Your task to perform on an android device: turn off picture-in-picture Image 0: 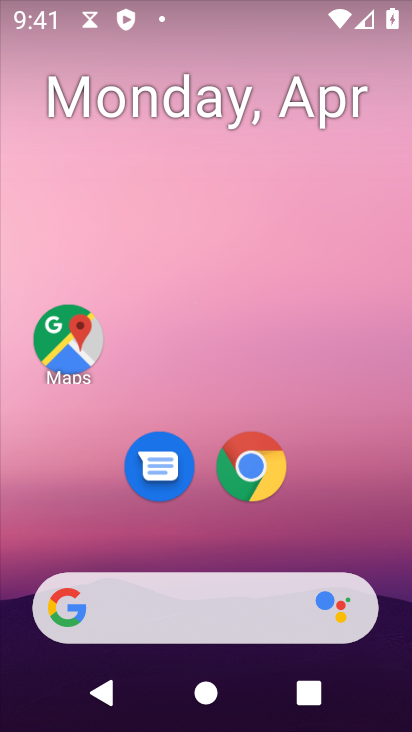
Step 0: click (253, 471)
Your task to perform on an android device: turn off picture-in-picture Image 1: 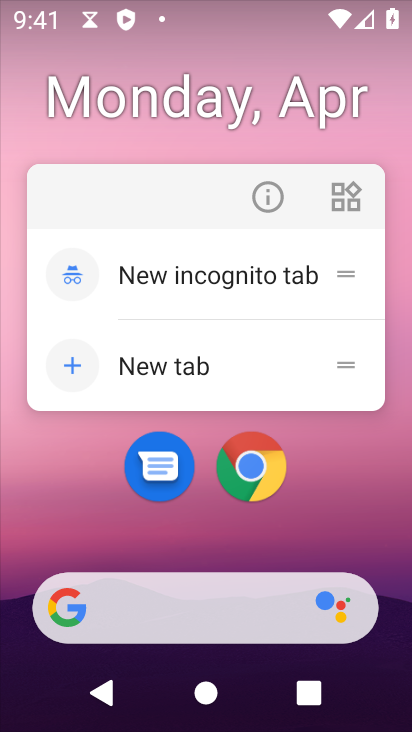
Step 1: click (276, 207)
Your task to perform on an android device: turn off picture-in-picture Image 2: 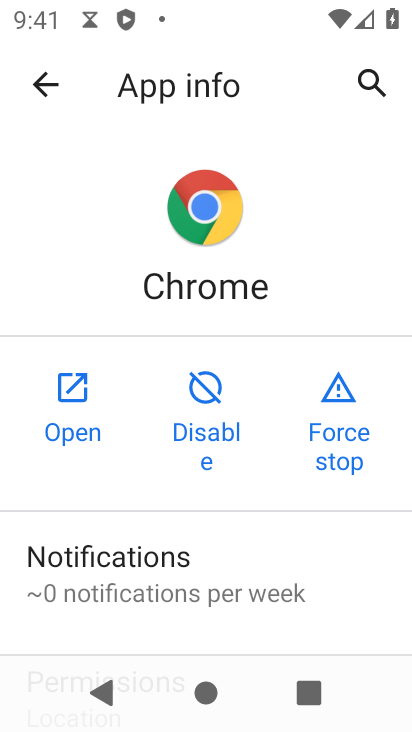
Step 2: drag from (211, 564) to (262, 378)
Your task to perform on an android device: turn off picture-in-picture Image 3: 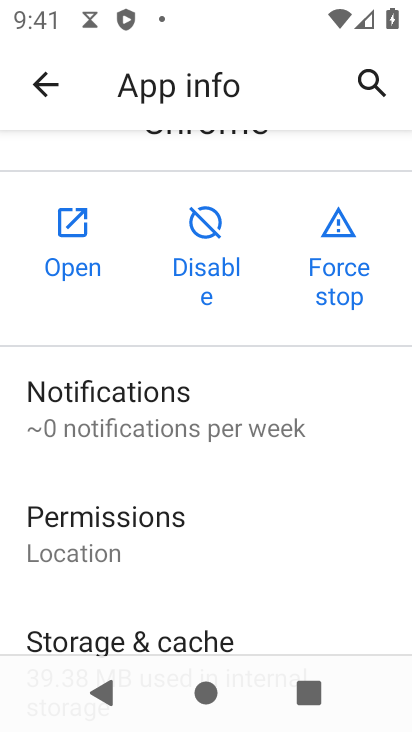
Step 3: drag from (258, 519) to (269, 365)
Your task to perform on an android device: turn off picture-in-picture Image 4: 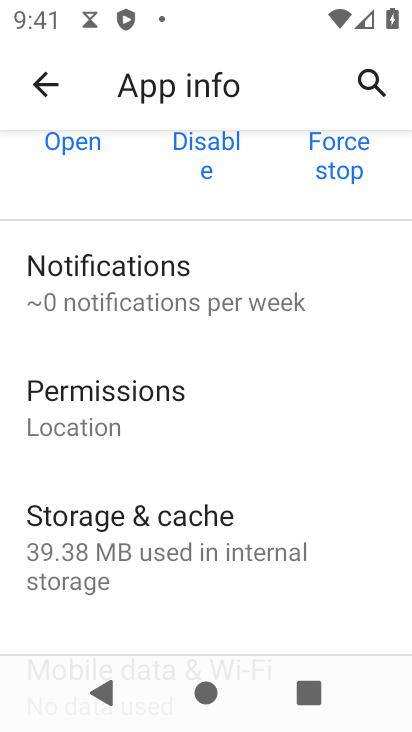
Step 4: drag from (272, 496) to (280, 385)
Your task to perform on an android device: turn off picture-in-picture Image 5: 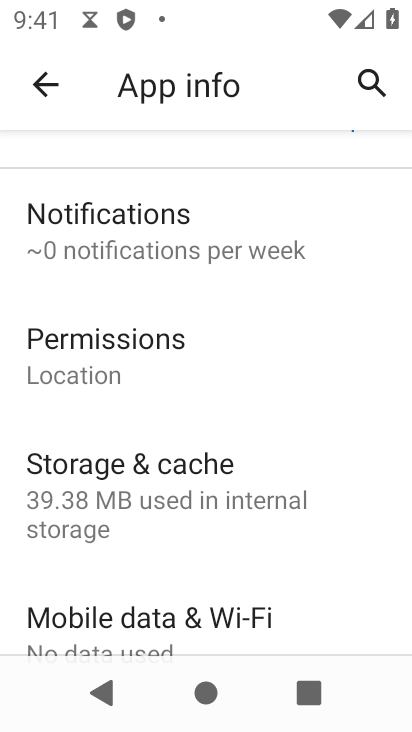
Step 5: drag from (238, 557) to (275, 411)
Your task to perform on an android device: turn off picture-in-picture Image 6: 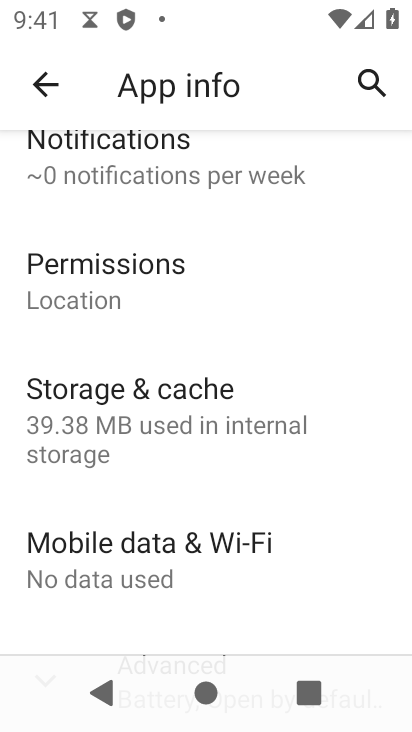
Step 6: drag from (208, 565) to (253, 426)
Your task to perform on an android device: turn off picture-in-picture Image 7: 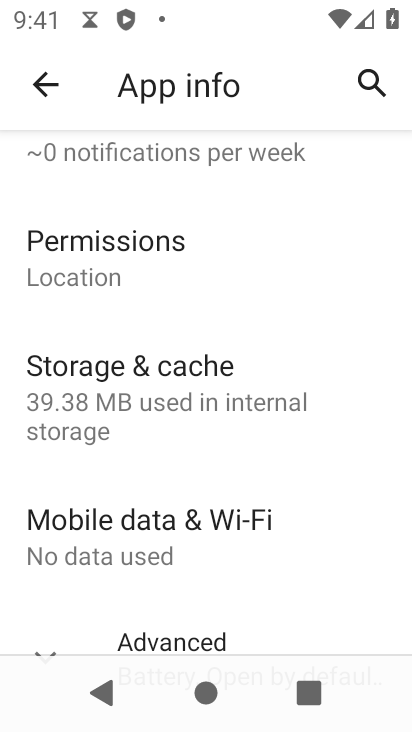
Step 7: drag from (239, 540) to (278, 436)
Your task to perform on an android device: turn off picture-in-picture Image 8: 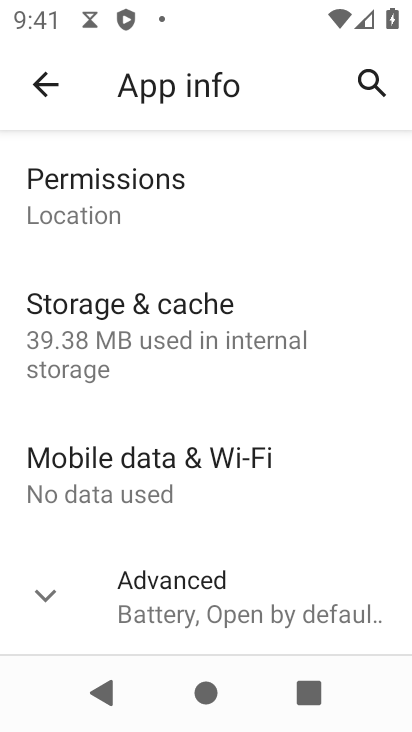
Step 8: drag from (248, 547) to (284, 444)
Your task to perform on an android device: turn off picture-in-picture Image 9: 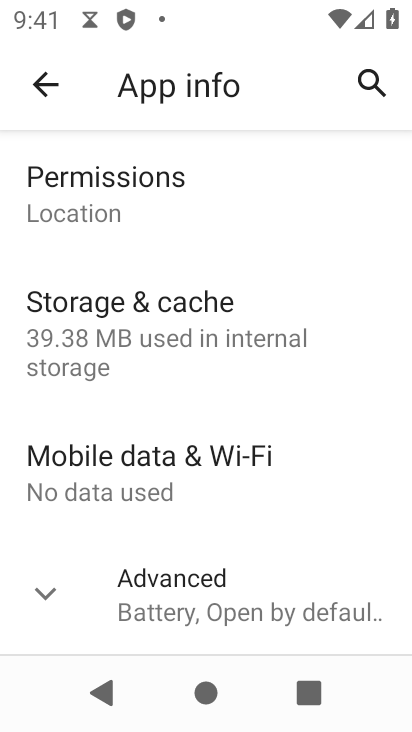
Step 9: click (235, 598)
Your task to perform on an android device: turn off picture-in-picture Image 10: 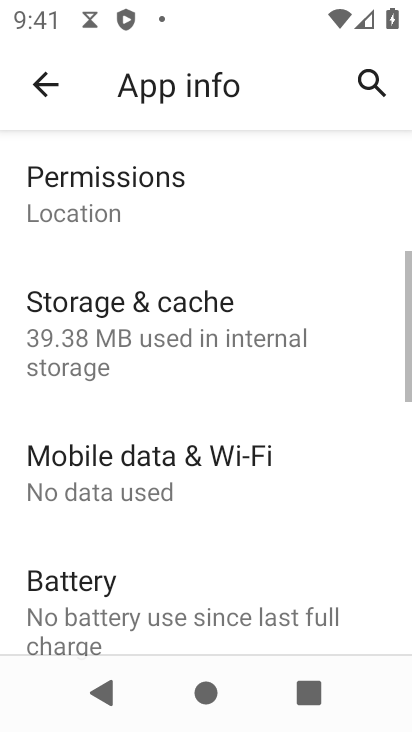
Step 10: drag from (238, 459) to (250, 411)
Your task to perform on an android device: turn off picture-in-picture Image 11: 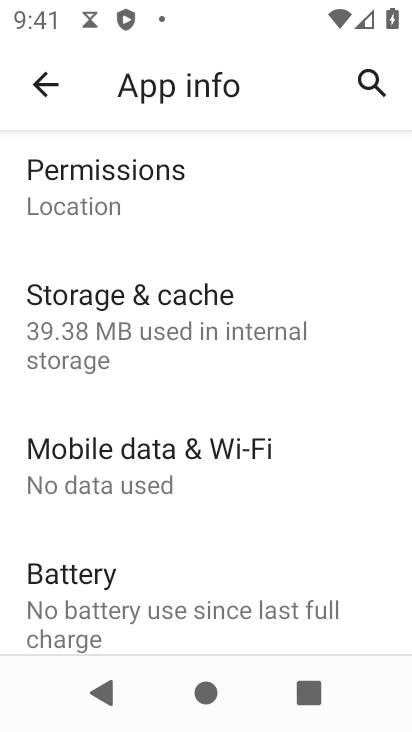
Step 11: drag from (196, 581) to (239, 470)
Your task to perform on an android device: turn off picture-in-picture Image 12: 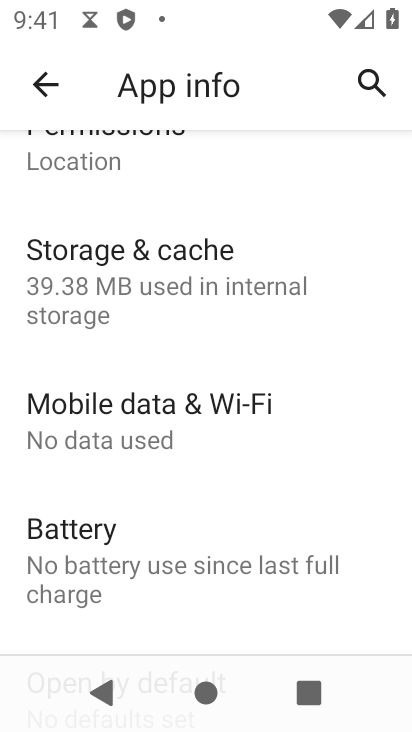
Step 12: drag from (198, 581) to (242, 472)
Your task to perform on an android device: turn off picture-in-picture Image 13: 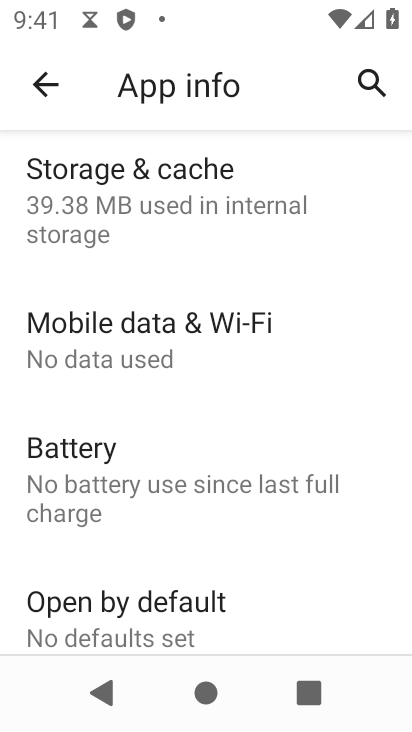
Step 13: drag from (222, 575) to (263, 407)
Your task to perform on an android device: turn off picture-in-picture Image 14: 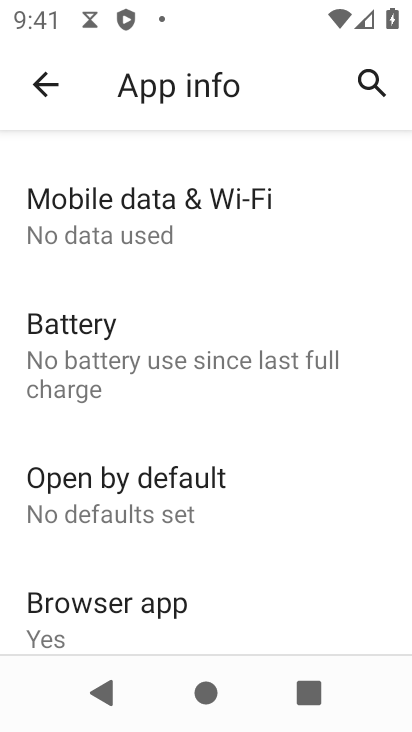
Step 14: drag from (248, 590) to (281, 414)
Your task to perform on an android device: turn off picture-in-picture Image 15: 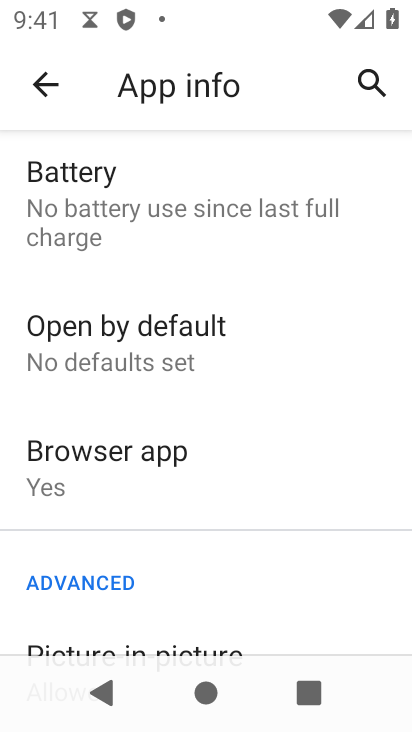
Step 15: drag from (237, 553) to (278, 430)
Your task to perform on an android device: turn off picture-in-picture Image 16: 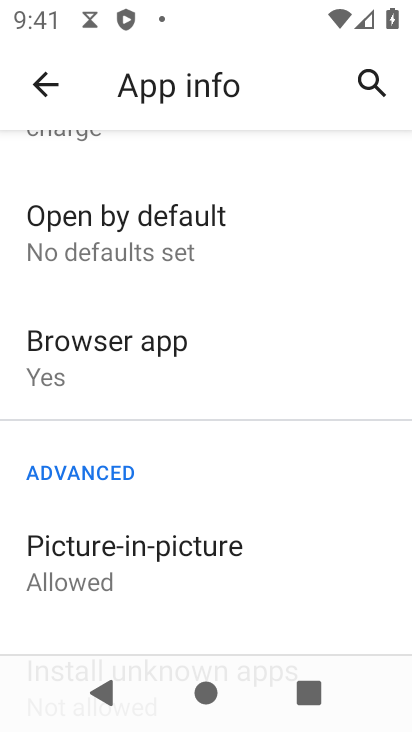
Step 16: click (235, 557)
Your task to perform on an android device: turn off picture-in-picture Image 17: 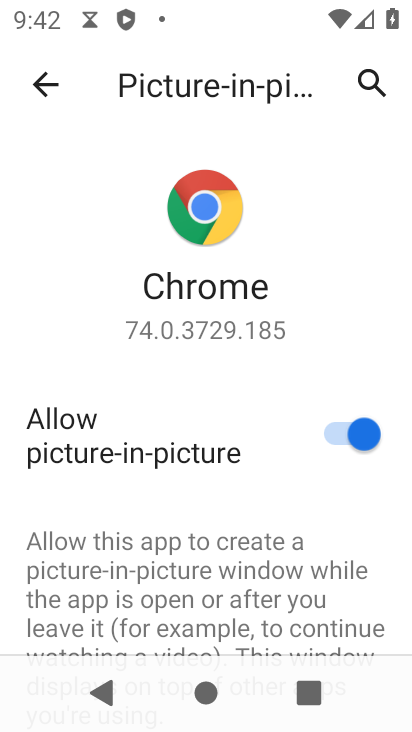
Step 17: click (362, 443)
Your task to perform on an android device: turn off picture-in-picture Image 18: 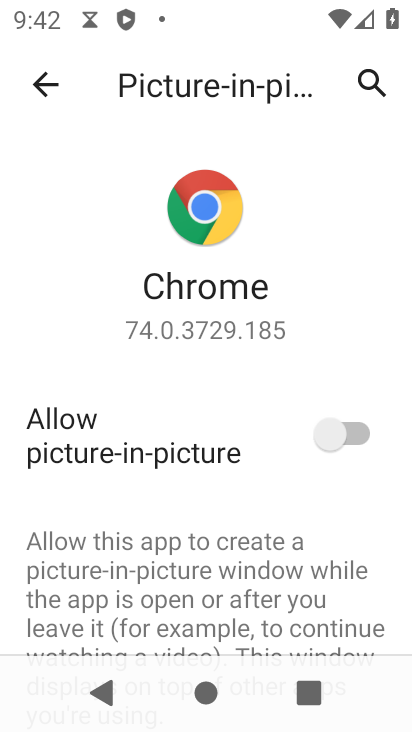
Step 18: task complete